Your task to perform on an android device: Is it going to rain today? Image 0: 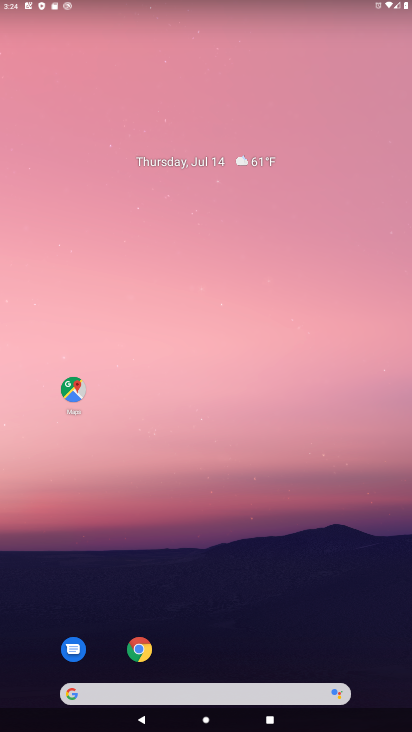
Step 0: drag from (193, 659) to (397, 165)
Your task to perform on an android device: Is it going to rain today? Image 1: 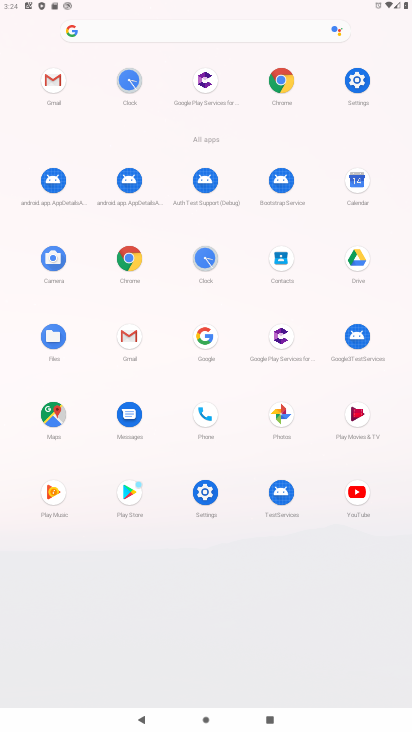
Step 1: click (206, 338)
Your task to perform on an android device: Is it going to rain today? Image 2: 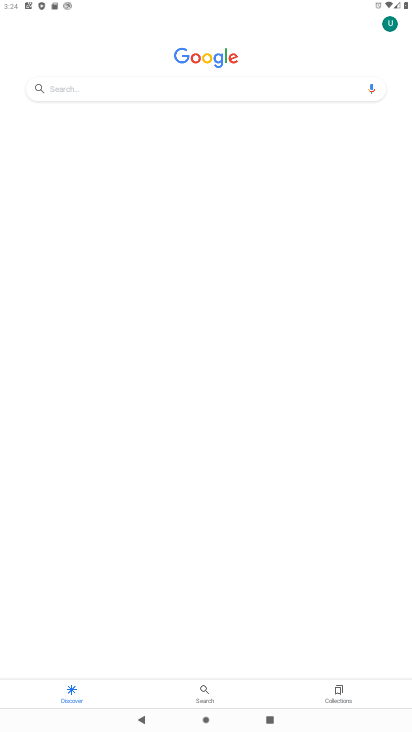
Step 2: click (202, 83)
Your task to perform on an android device: Is it going to rain today? Image 3: 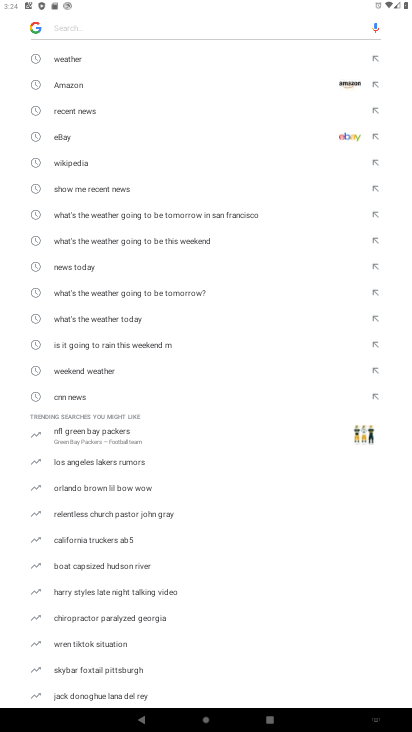
Step 3: click (58, 60)
Your task to perform on an android device: Is it going to rain today? Image 4: 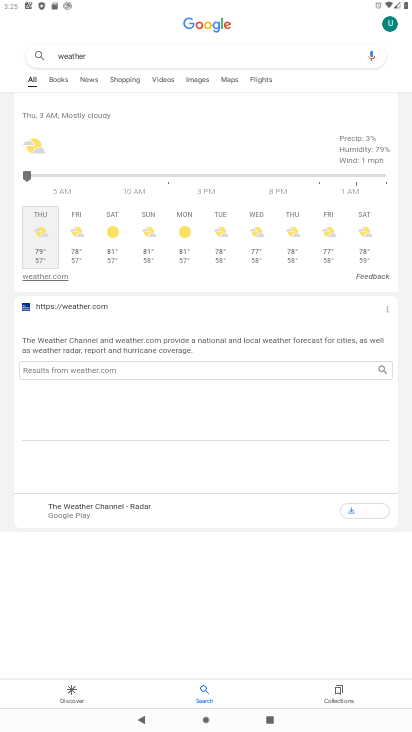
Step 4: click (47, 227)
Your task to perform on an android device: Is it going to rain today? Image 5: 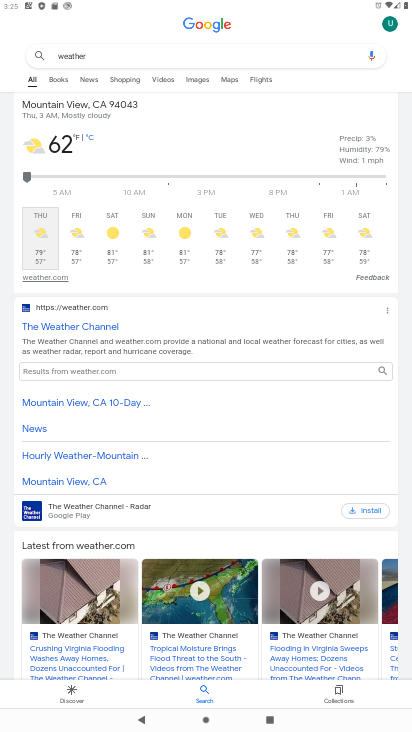
Step 5: task complete